Your task to perform on an android device: Clear the shopping cart on target.com. Search for "amazon basics triple a" on target.com, select the first entry, and add it to the cart. Image 0: 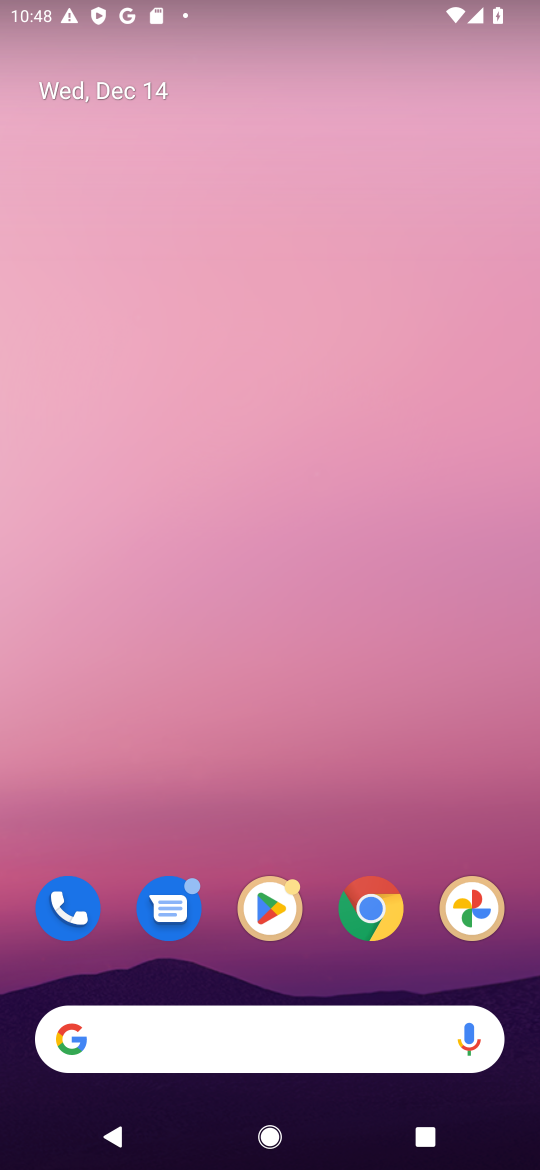
Step 0: click (359, 934)
Your task to perform on an android device: Clear the shopping cart on target.com. Search for "amazon basics triple a" on target.com, select the first entry, and add it to the cart. Image 1: 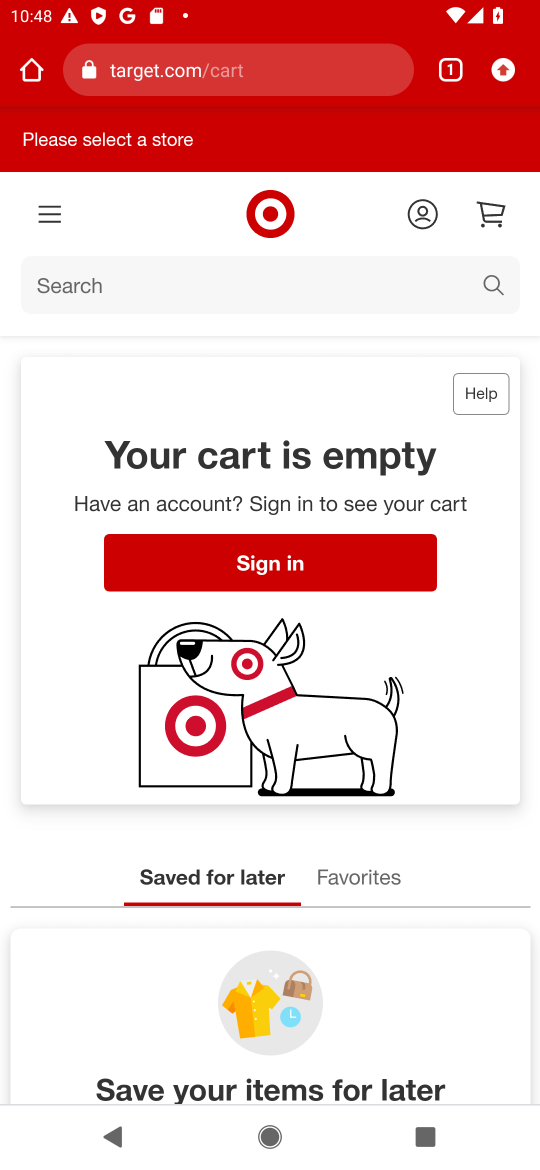
Step 1: click (221, 292)
Your task to perform on an android device: Clear the shopping cart on target.com. Search for "amazon basics triple a" on target.com, select the first entry, and add it to the cart. Image 2: 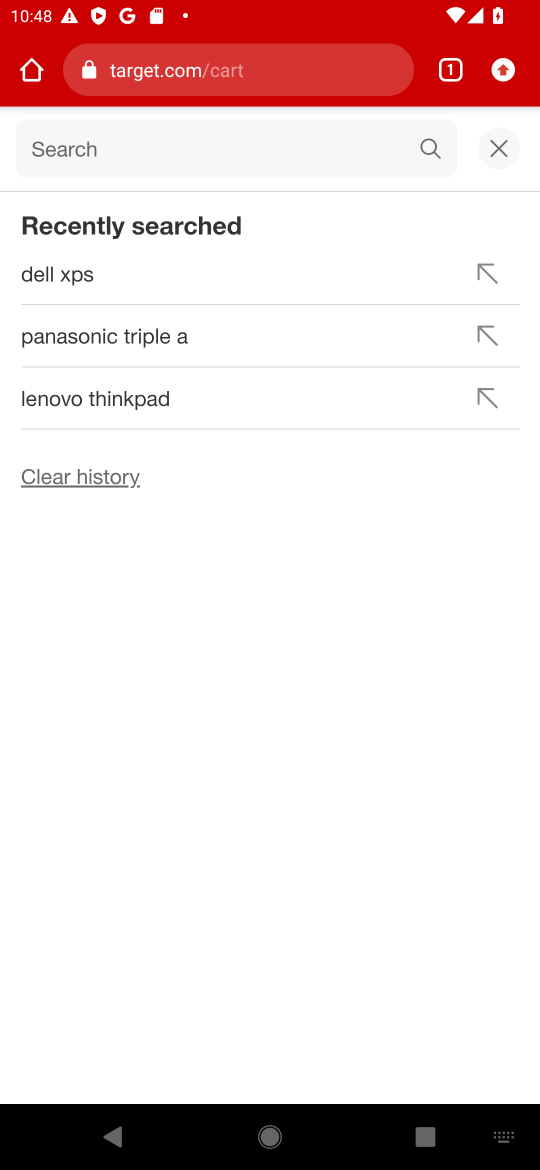
Step 2: type "amazon basic triple a"
Your task to perform on an android device: Clear the shopping cart on target.com. Search for "amazon basics triple a" on target.com, select the first entry, and add it to the cart. Image 3: 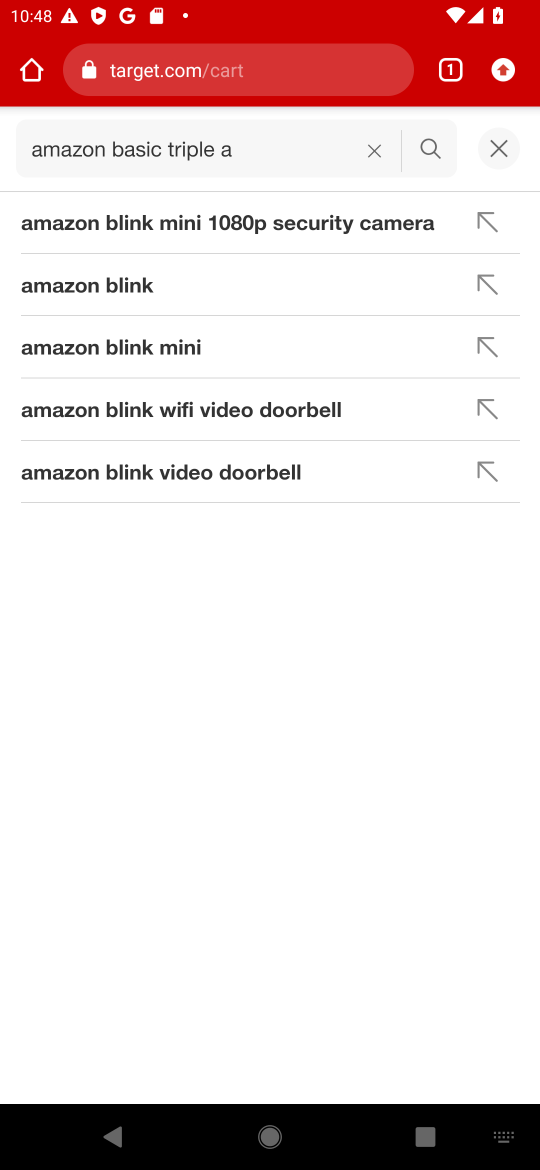
Step 3: click (424, 164)
Your task to perform on an android device: Clear the shopping cart on target.com. Search for "amazon basics triple a" on target.com, select the first entry, and add it to the cart. Image 4: 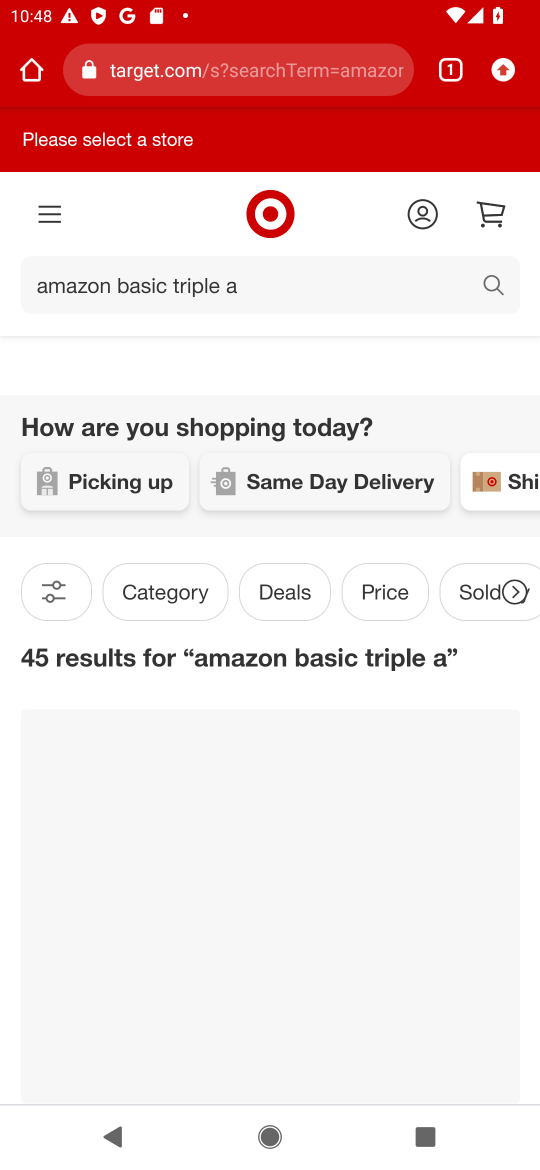
Step 4: drag from (153, 921) to (207, 538)
Your task to perform on an android device: Clear the shopping cart on target.com. Search for "amazon basics triple a" on target.com, select the first entry, and add it to the cart. Image 5: 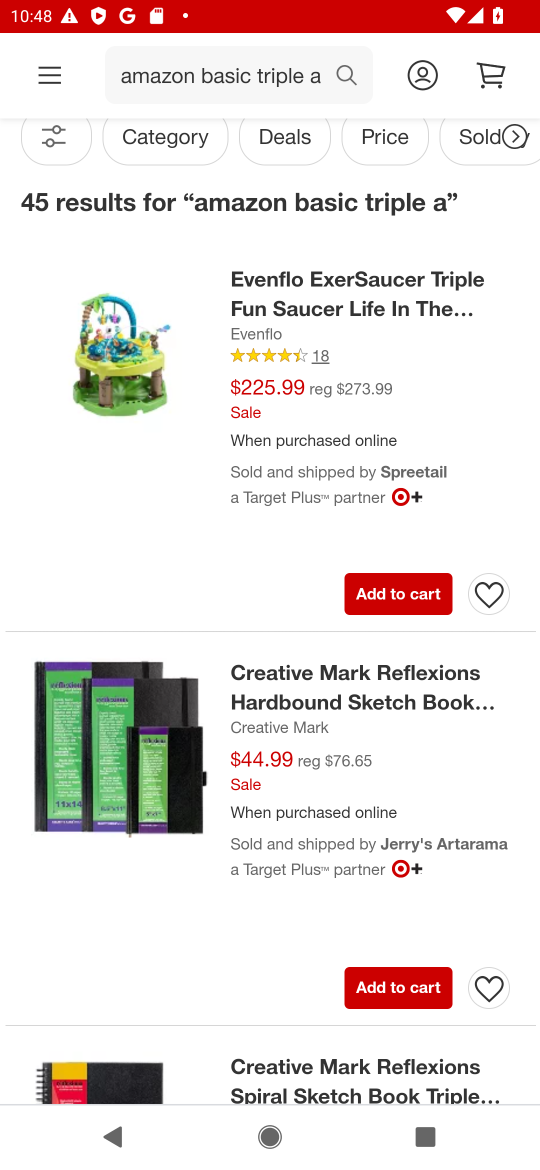
Step 5: click (360, 961)
Your task to perform on an android device: Clear the shopping cart on target.com. Search for "amazon basics triple a" on target.com, select the first entry, and add it to the cart. Image 6: 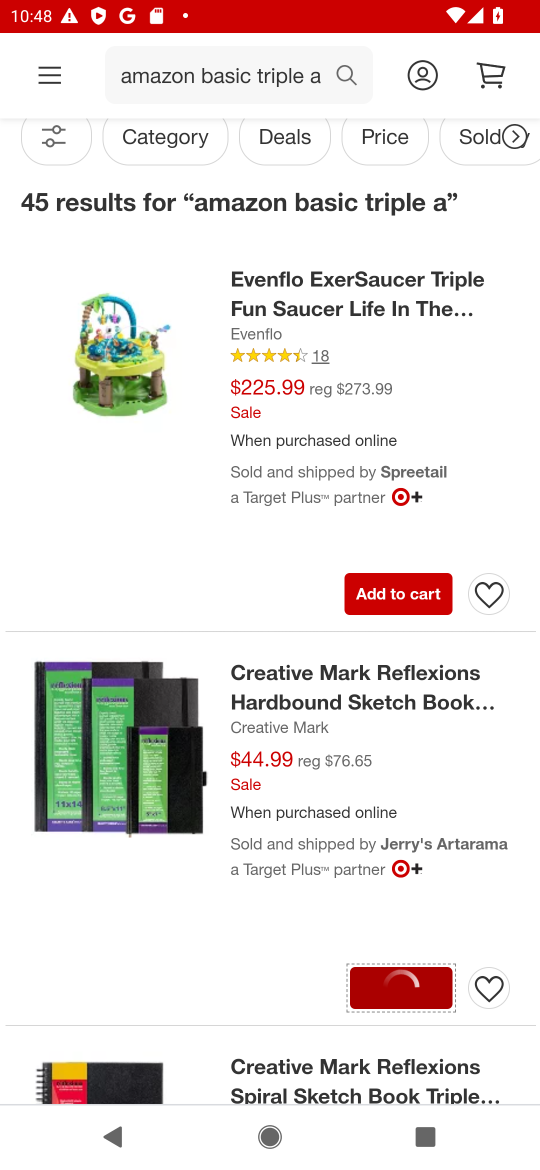
Step 6: task complete